Your task to perform on an android device: change the clock display to analog Image 0: 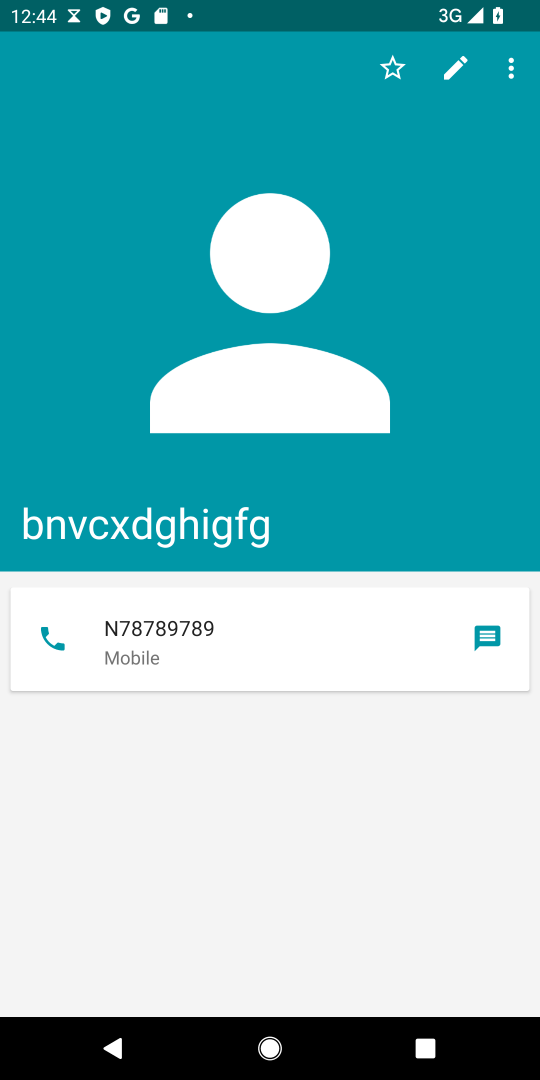
Step 0: press home button
Your task to perform on an android device: change the clock display to analog Image 1: 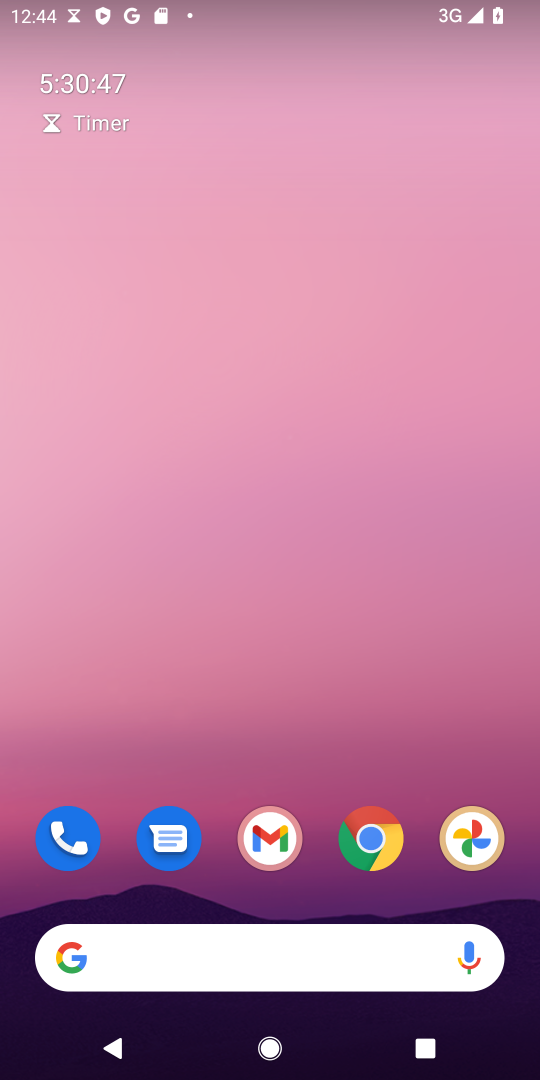
Step 1: drag from (223, 759) to (303, 35)
Your task to perform on an android device: change the clock display to analog Image 2: 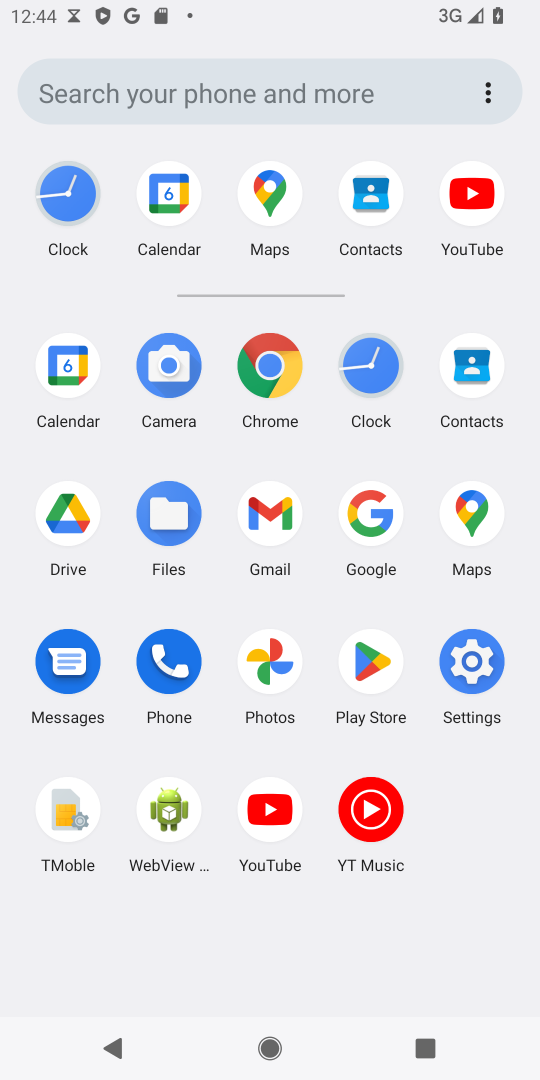
Step 2: click (378, 378)
Your task to perform on an android device: change the clock display to analog Image 3: 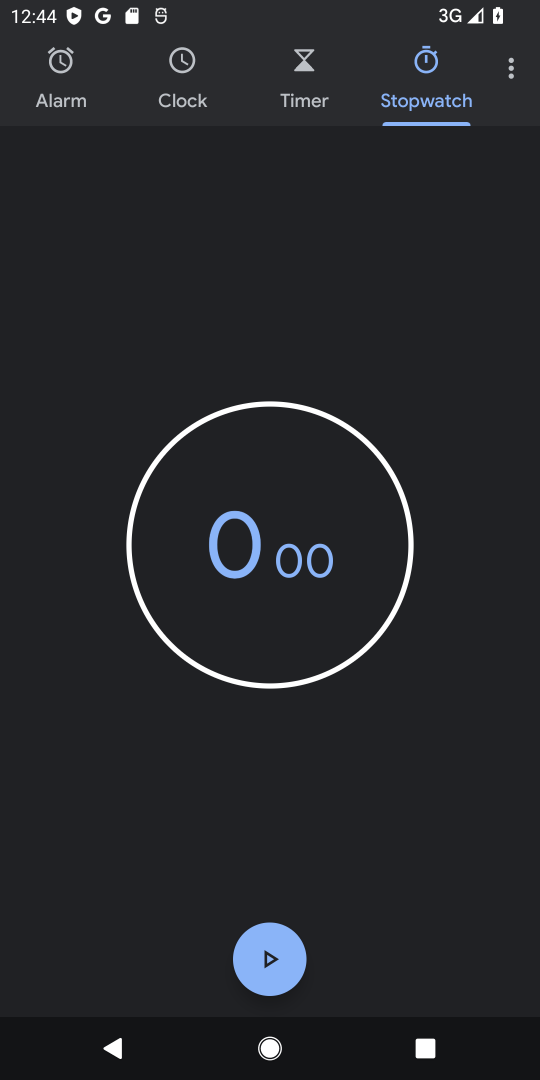
Step 3: click (508, 67)
Your task to perform on an android device: change the clock display to analog Image 4: 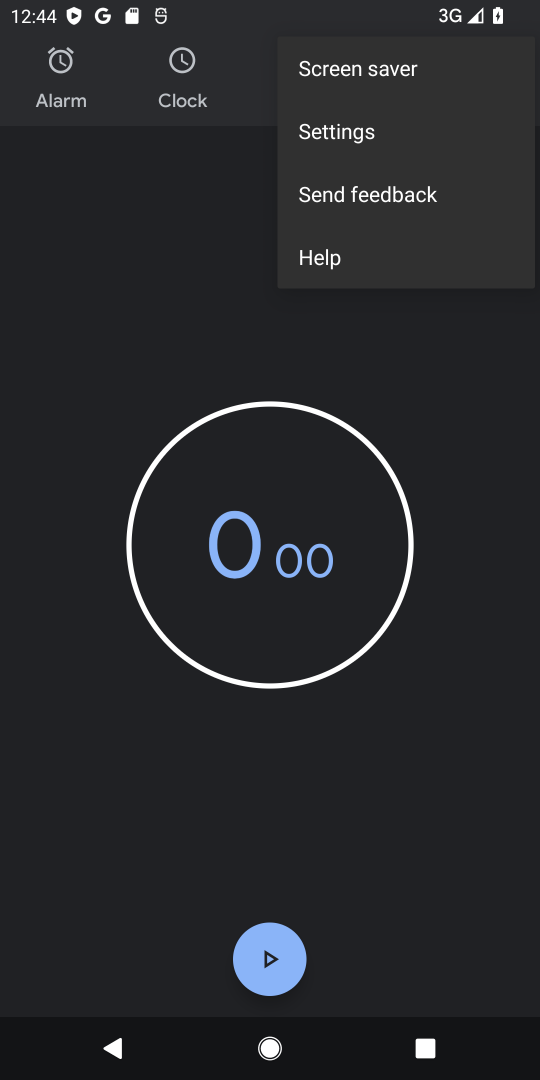
Step 4: click (367, 135)
Your task to perform on an android device: change the clock display to analog Image 5: 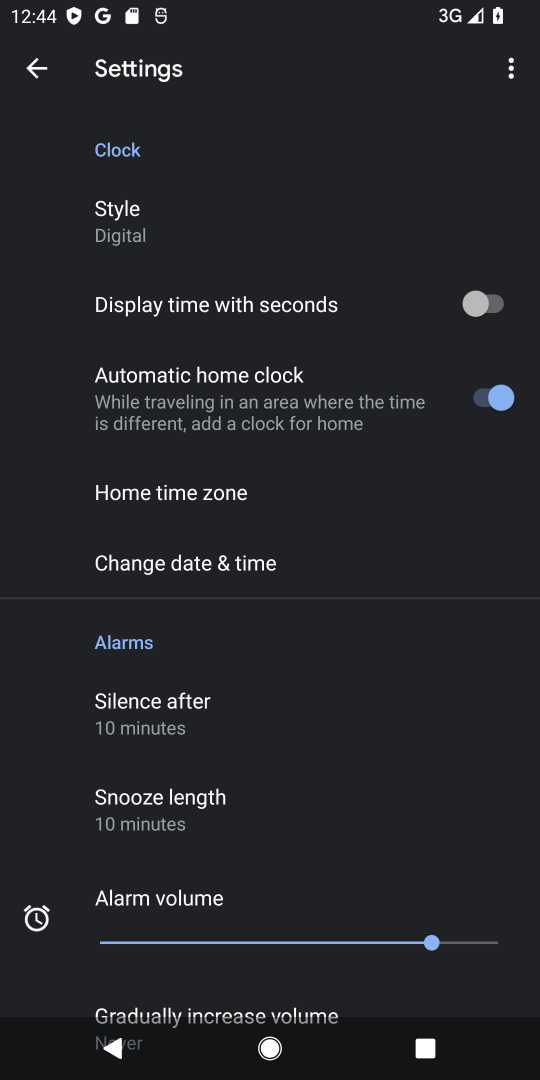
Step 5: click (147, 210)
Your task to perform on an android device: change the clock display to analog Image 6: 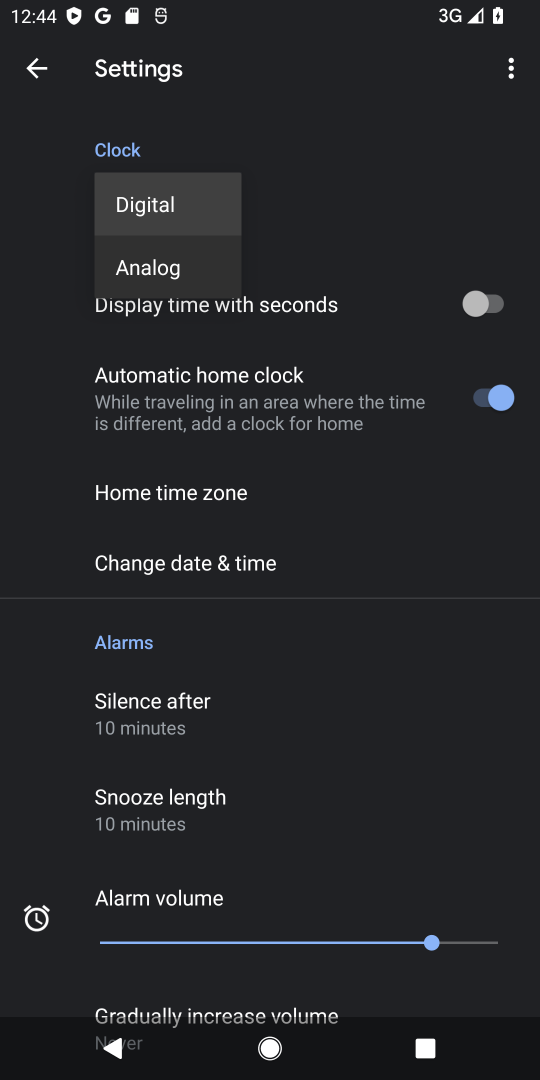
Step 6: click (172, 275)
Your task to perform on an android device: change the clock display to analog Image 7: 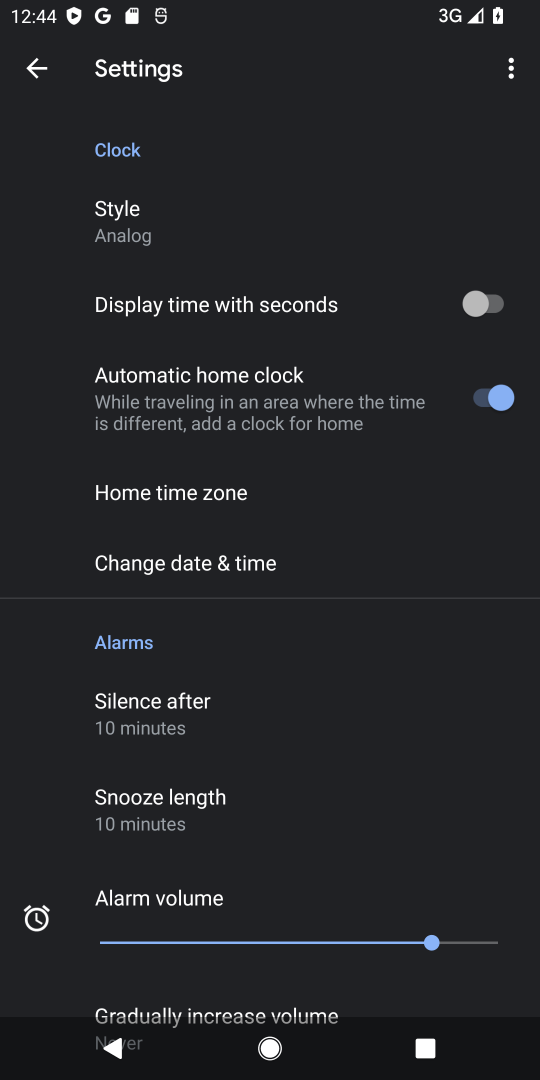
Step 7: task complete